Your task to perform on an android device: Go to Amazon Image 0: 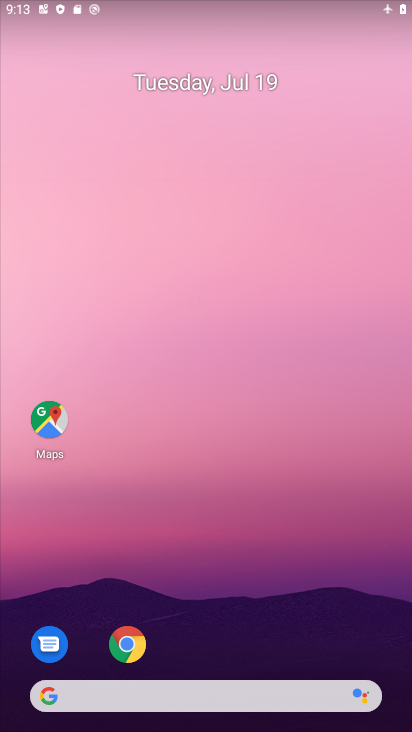
Step 0: drag from (204, 674) to (197, 223)
Your task to perform on an android device: Go to Amazon Image 1: 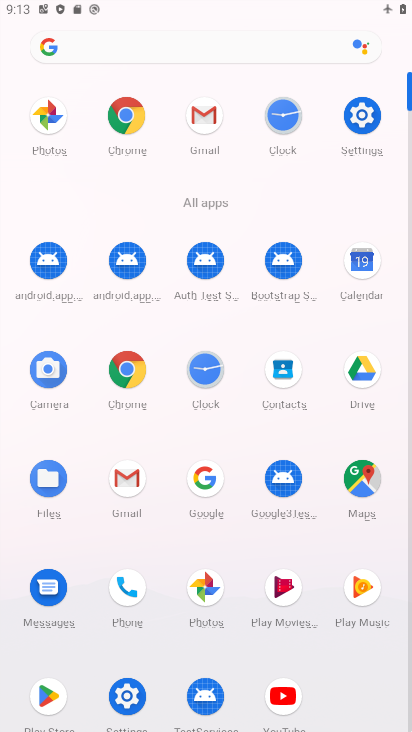
Step 1: click (118, 373)
Your task to perform on an android device: Go to Amazon Image 2: 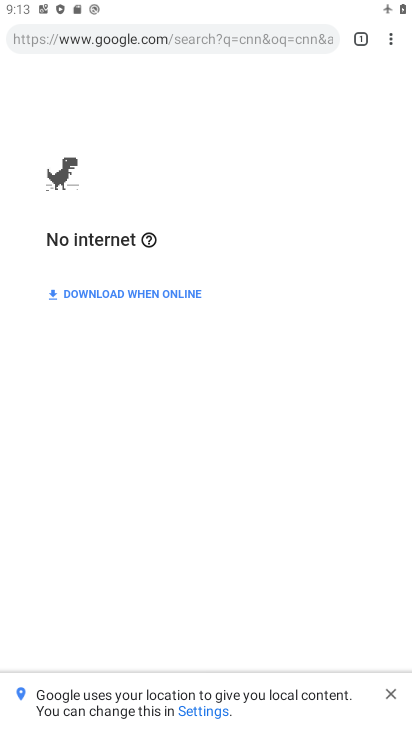
Step 2: click (351, 46)
Your task to perform on an android device: Go to Amazon Image 3: 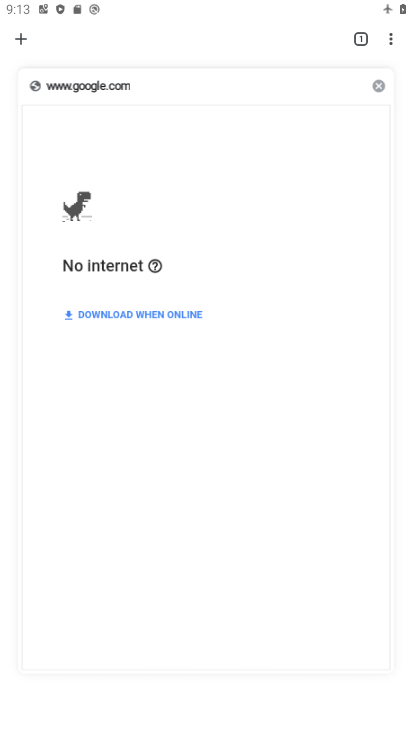
Step 3: click (15, 30)
Your task to perform on an android device: Go to Amazon Image 4: 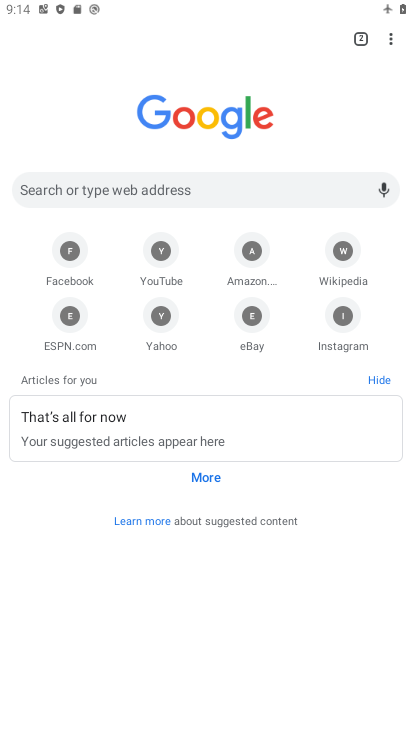
Step 4: click (245, 267)
Your task to perform on an android device: Go to Amazon Image 5: 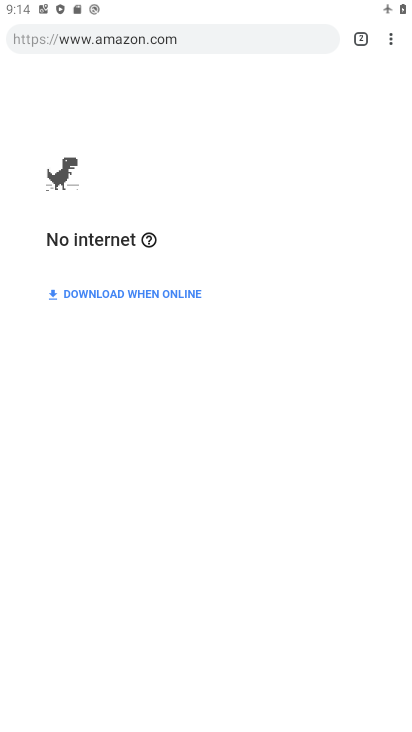
Step 5: task complete